Your task to perform on an android device: Go to location settings Image 0: 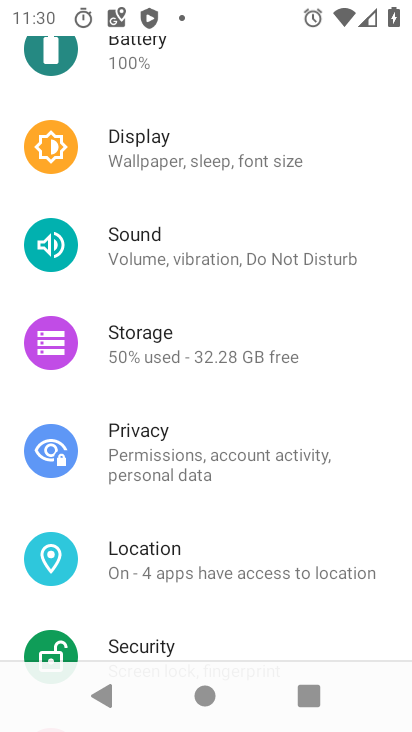
Step 0: click (150, 566)
Your task to perform on an android device: Go to location settings Image 1: 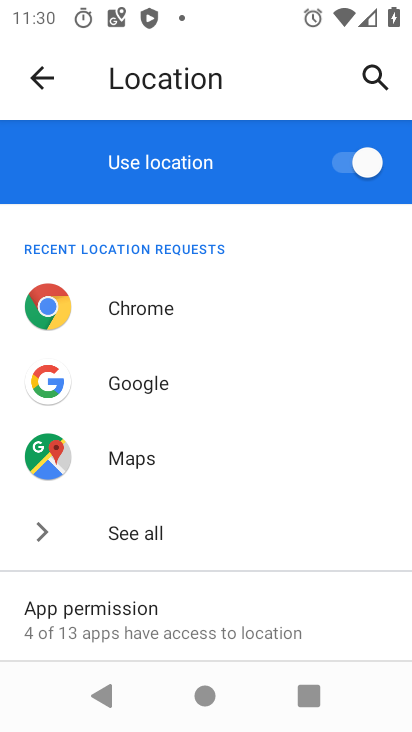
Step 1: task complete